Your task to perform on an android device: Go to Google maps Image 0: 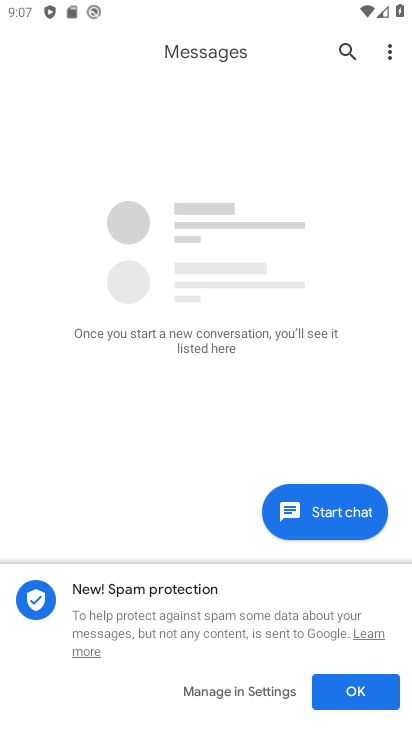
Step 0: press home button
Your task to perform on an android device: Go to Google maps Image 1: 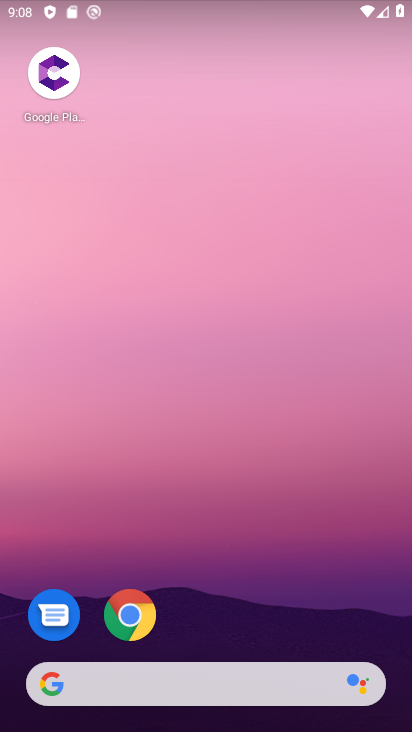
Step 1: drag from (287, 534) to (241, 58)
Your task to perform on an android device: Go to Google maps Image 2: 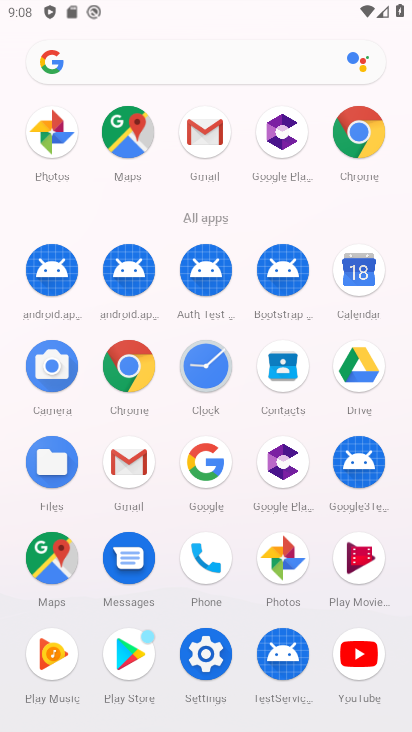
Step 2: click (129, 125)
Your task to perform on an android device: Go to Google maps Image 3: 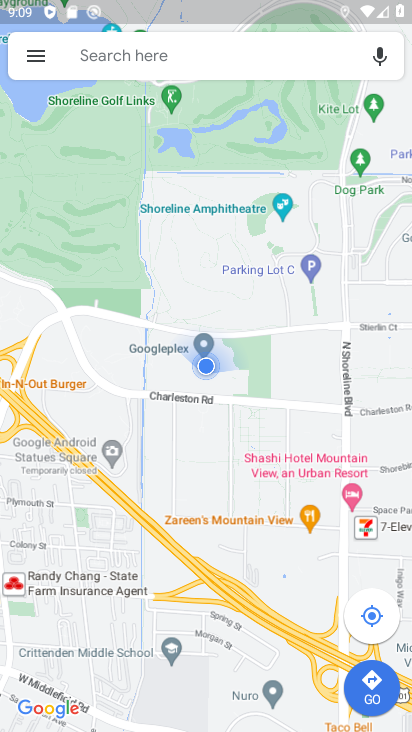
Step 3: task complete